Your task to perform on an android device: turn off data saver in the chrome app Image 0: 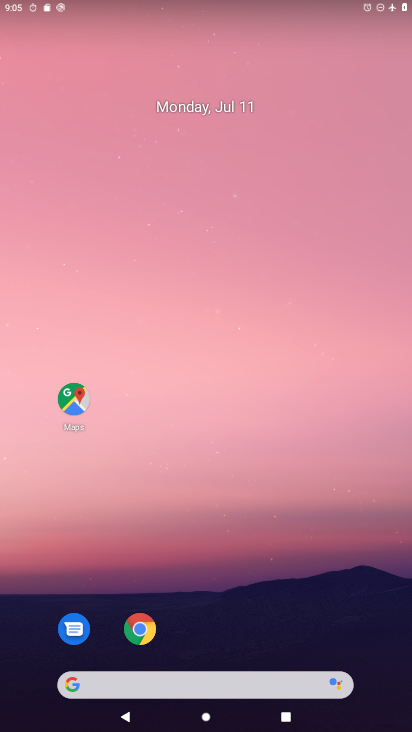
Step 0: click (143, 630)
Your task to perform on an android device: turn off data saver in the chrome app Image 1: 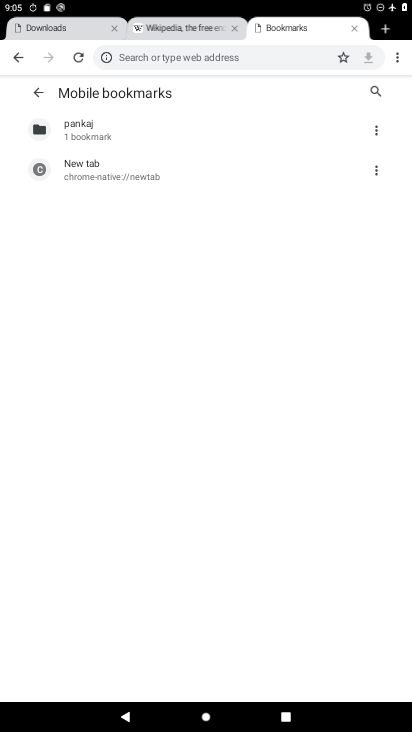
Step 1: click (394, 59)
Your task to perform on an android device: turn off data saver in the chrome app Image 2: 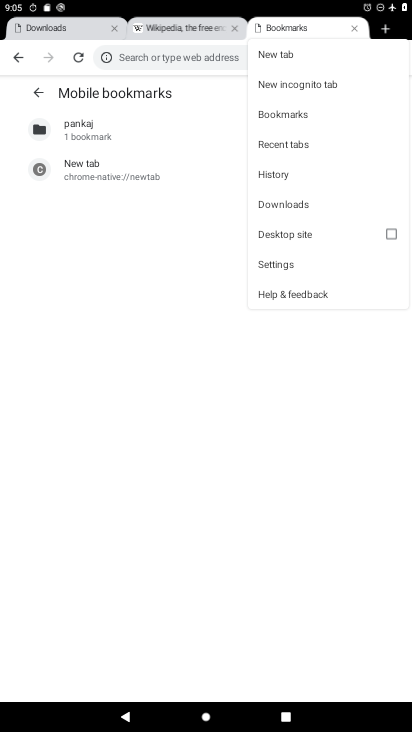
Step 2: click (291, 263)
Your task to perform on an android device: turn off data saver in the chrome app Image 3: 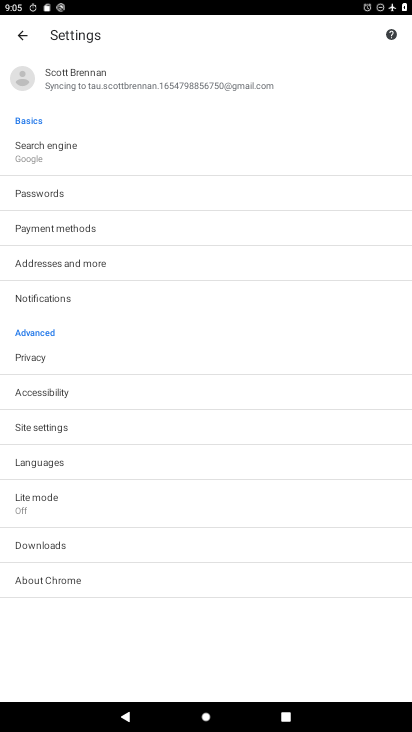
Step 3: click (49, 511)
Your task to perform on an android device: turn off data saver in the chrome app Image 4: 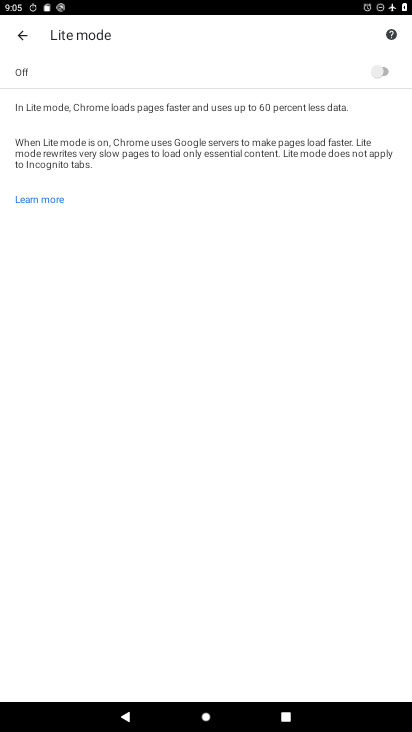
Step 4: task complete